Your task to perform on an android device: Open internet settings Image 0: 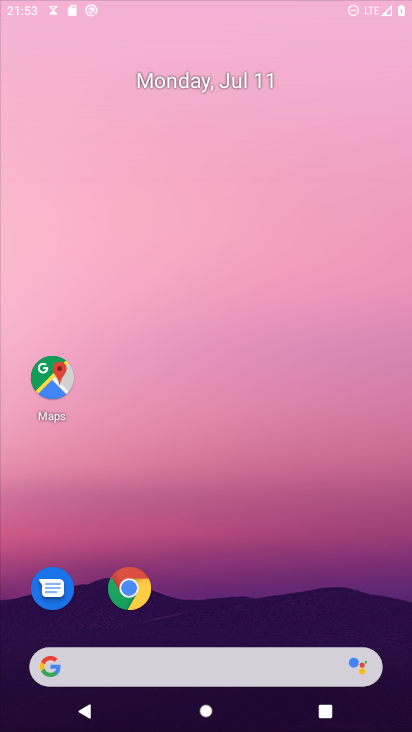
Step 0: press home button
Your task to perform on an android device: Open internet settings Image 1: 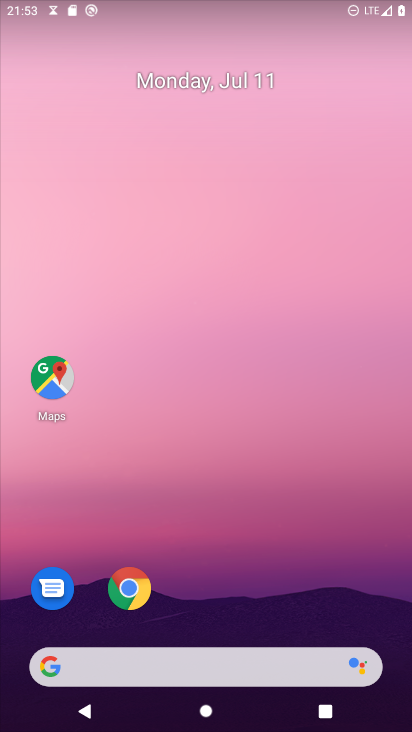
Step 1: drag from (226, 627) to (221, 111)
Your task to perform on an android device: Open internet settings Image 2: 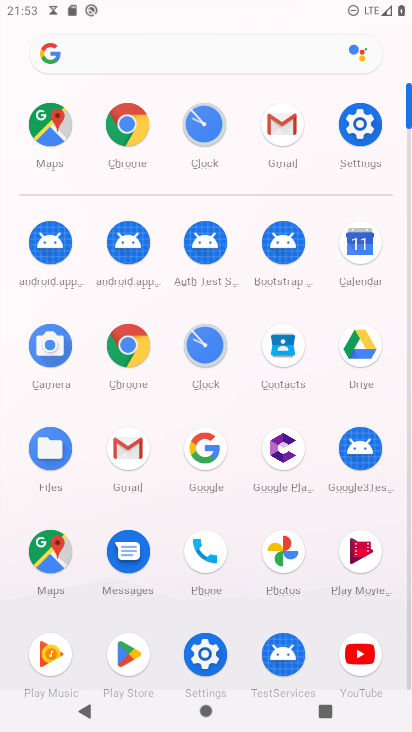
Step 2: click (334, 141)
Your task to perform on an android device: Open internet settings Image 3: 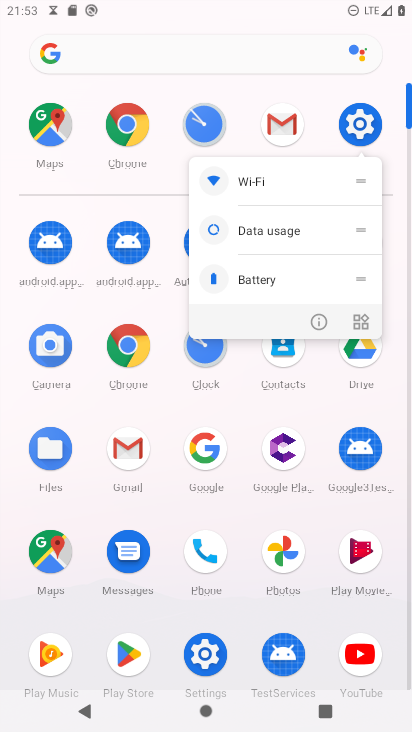
Step 3: click (367, 122)
Your task to perform on an android device: Open internet settings Image 4: 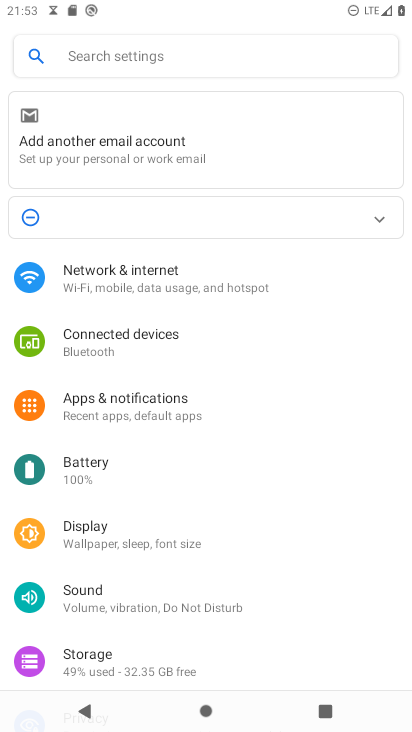
Step 4: click (127, 270)
Your task to perform on an android device: Open internet settings Image 5: 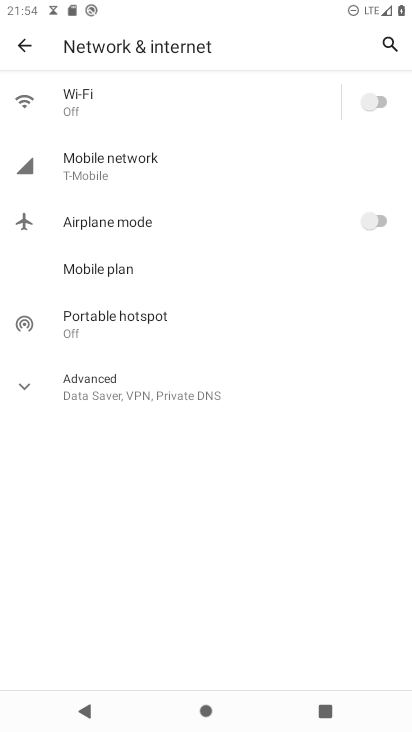
Step 5: task complete